Your task to perform on an android device: What's the weather going to be this weekend? Image 0: 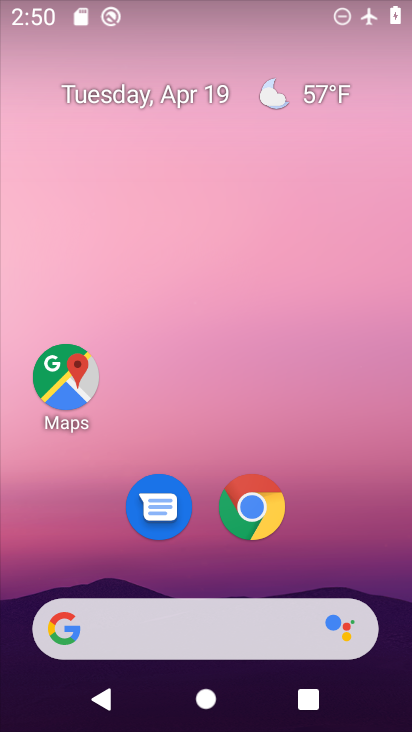
Step 0: click (314, 537)
Your task to perform on an android device: What's the weather going to be this weekend? Image 1: 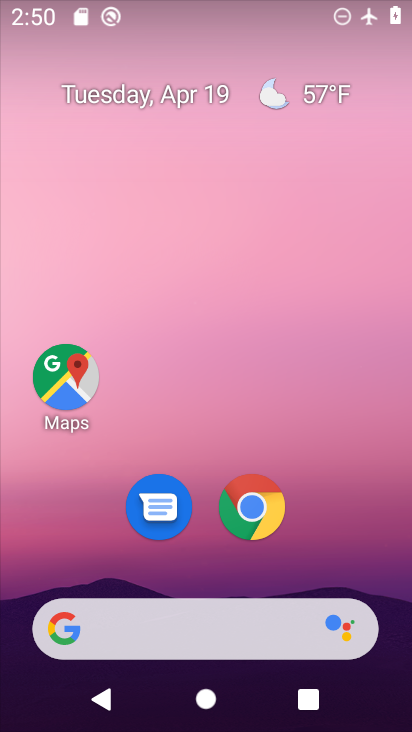
Step 1: click (251, 624)
Your task to perform on an android device: What's the weather going to be this weekend? Image 2: 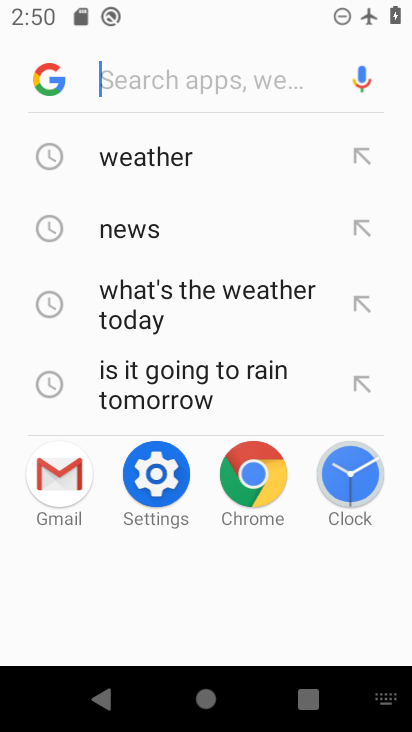
Step 2: click (214, 148)
Your task to perform on an android device: What's the weather going to be this weekend? Image 3: 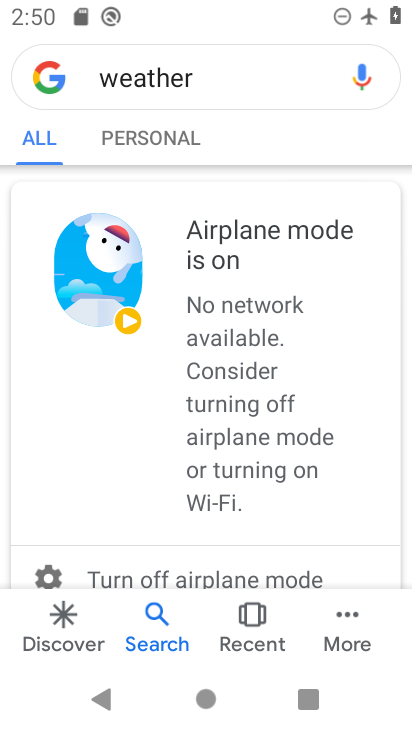
Step 3: task complete